Your task to perform on an android device: Play the last video I watched on Youtube Image 0: 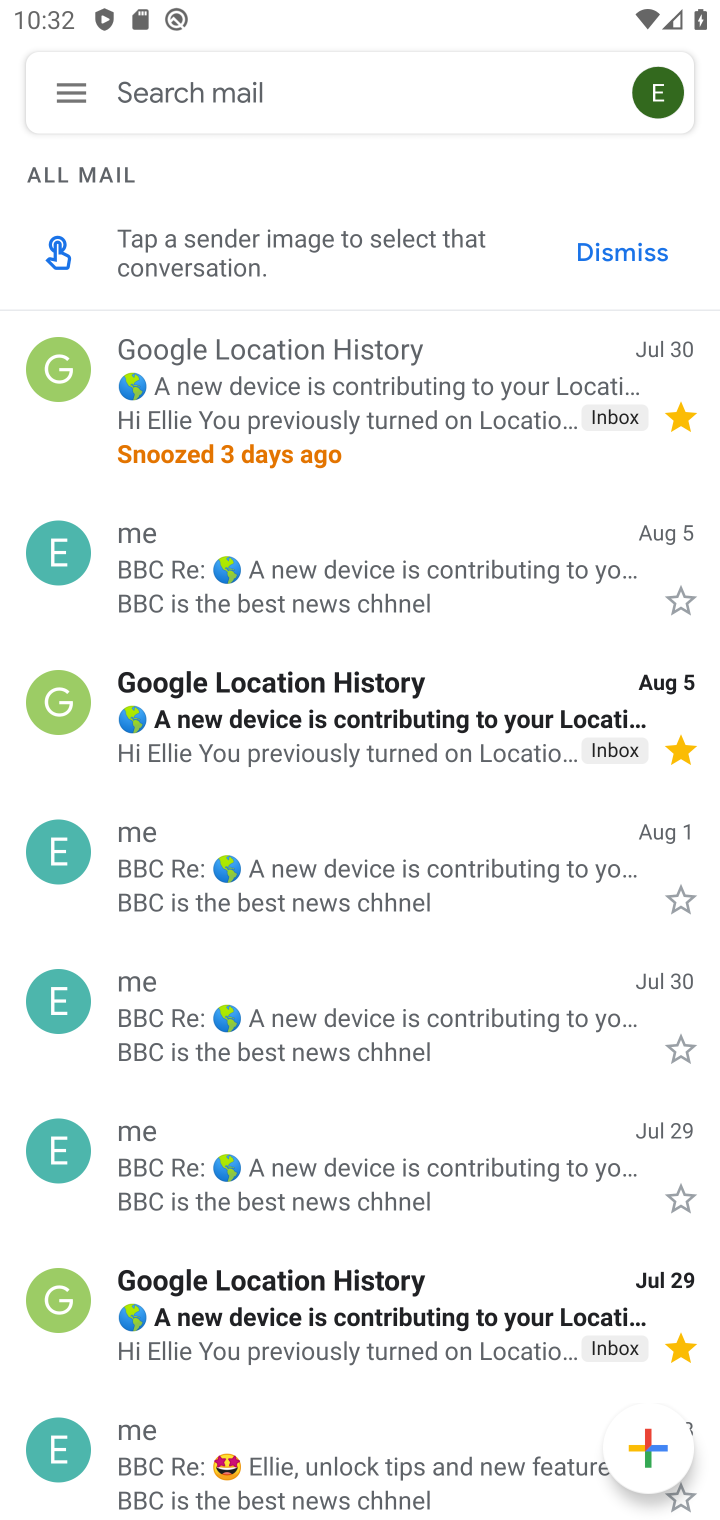
Step 0: press back button
Your task to perform on an android device: Play the last video I watched on Youtube Image 1: 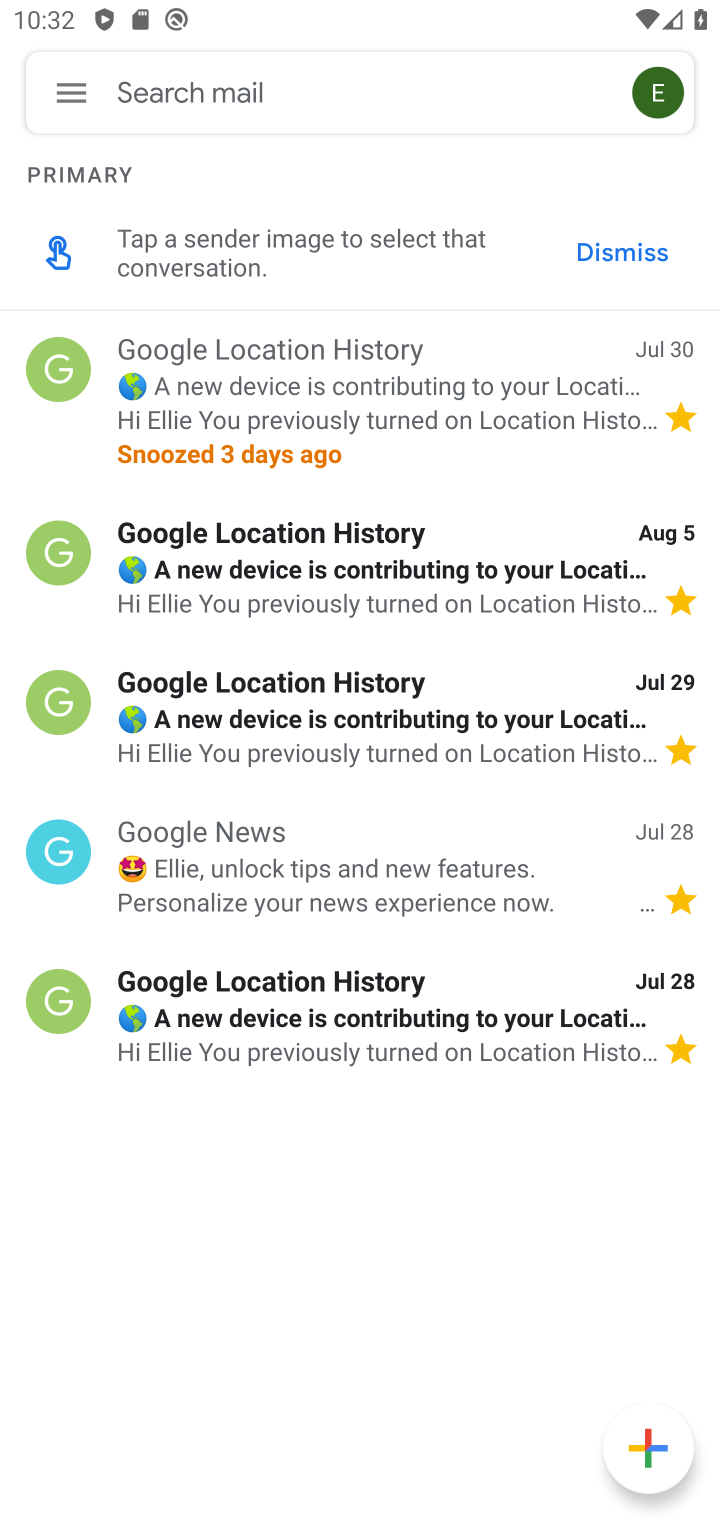
Step 1: press back button
Your task to perform on an android device: Play the last video I watched on Youtube Image 2: 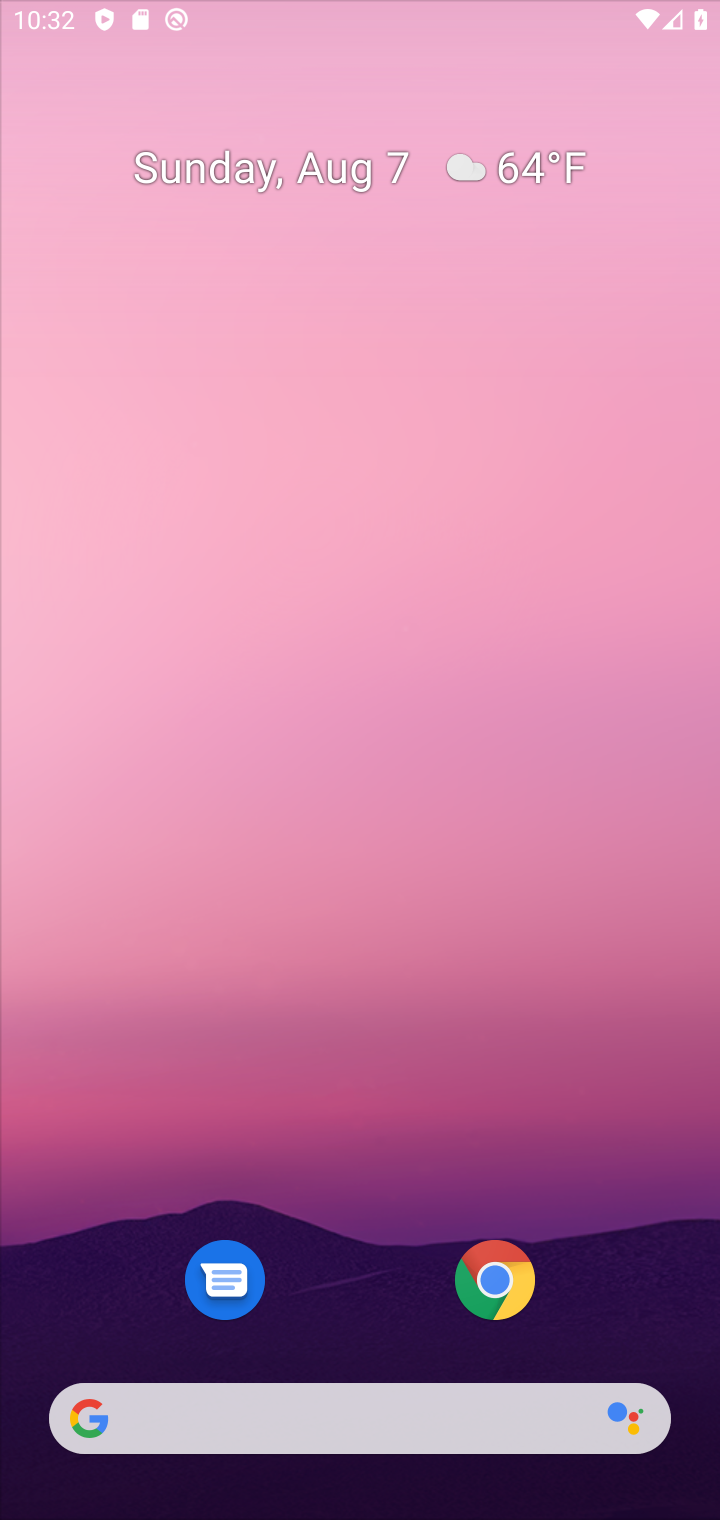
Step 2: press back button
Your task to perform on an android device: Play the last video I watched on Youtube Image 3: 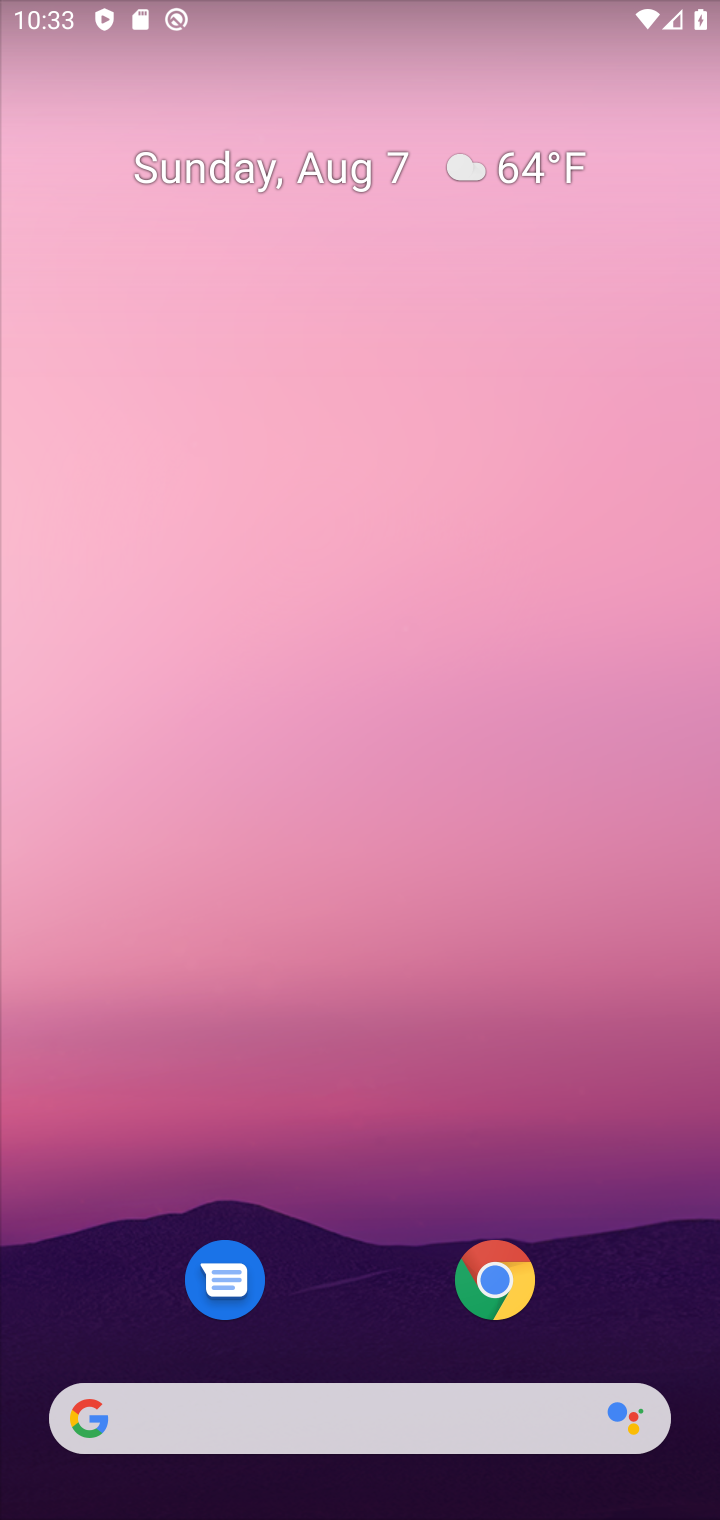
Step 3: drag from (367, 766) to (457, 22)
Your task to perform on an android device: Play the last video I watched on Youtube Image 4: 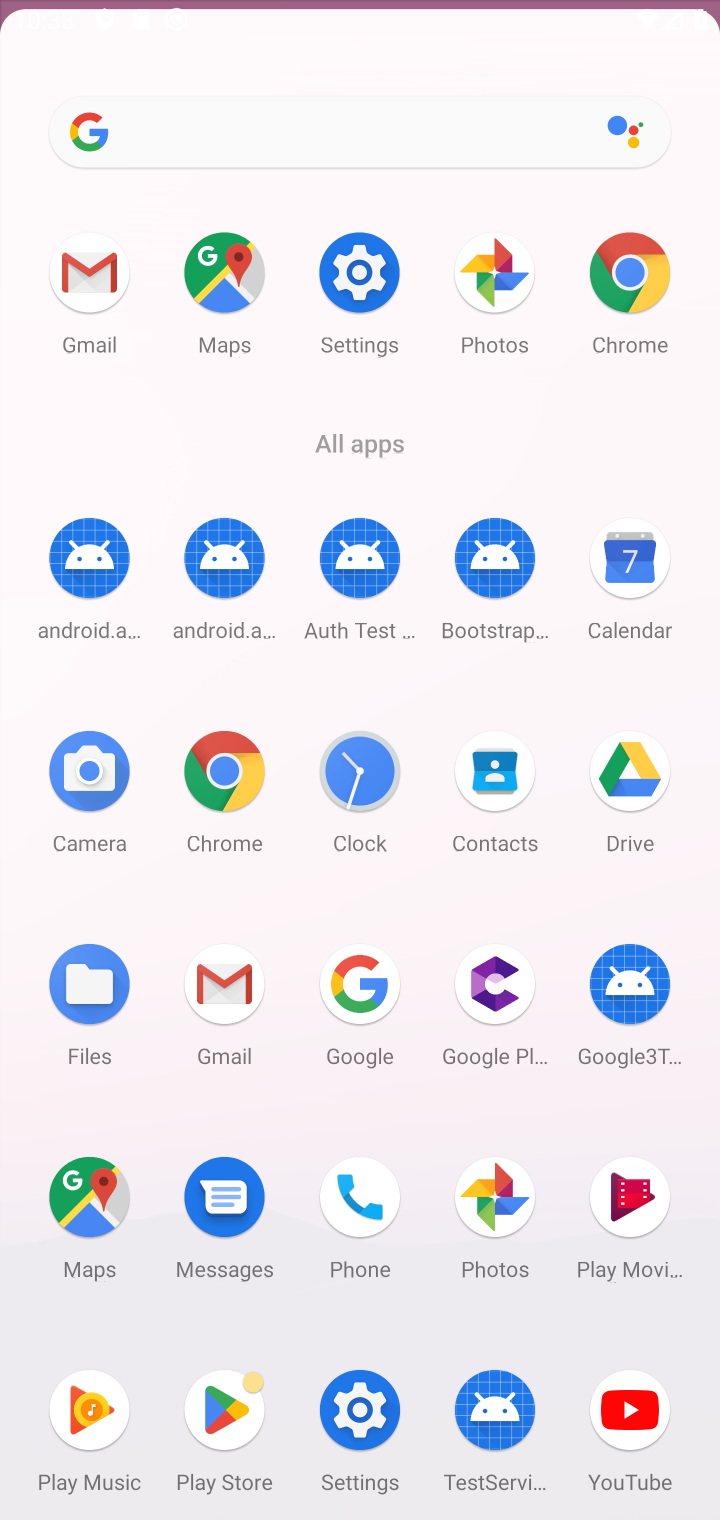
Step 4: drag from (377, 916) to (417, 145)
Your task to perform on an android device: Play the last video I watched on Youtube Image 5: 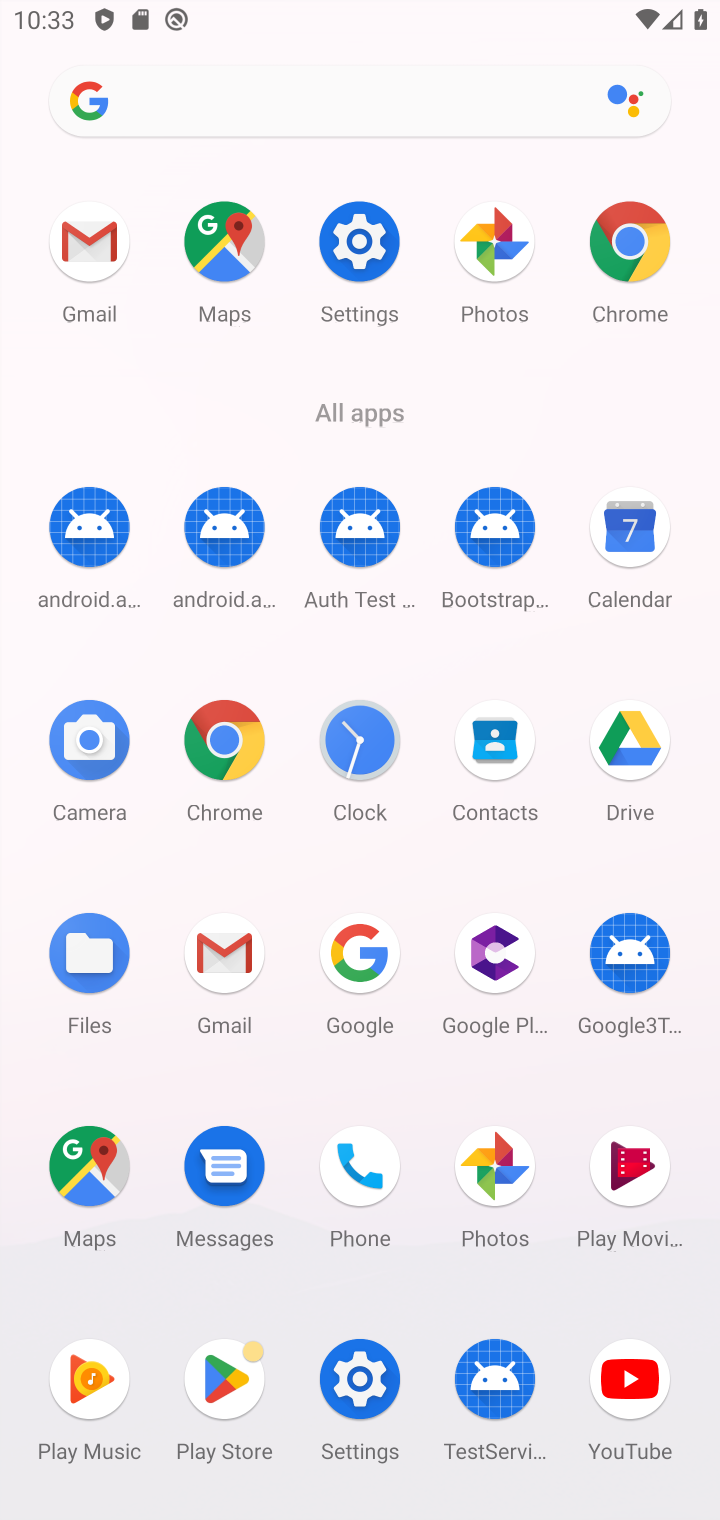
Step 5: click (626, 1378)
Your task to perform on an android device: Play the last video I watched on Youtube Image 6: 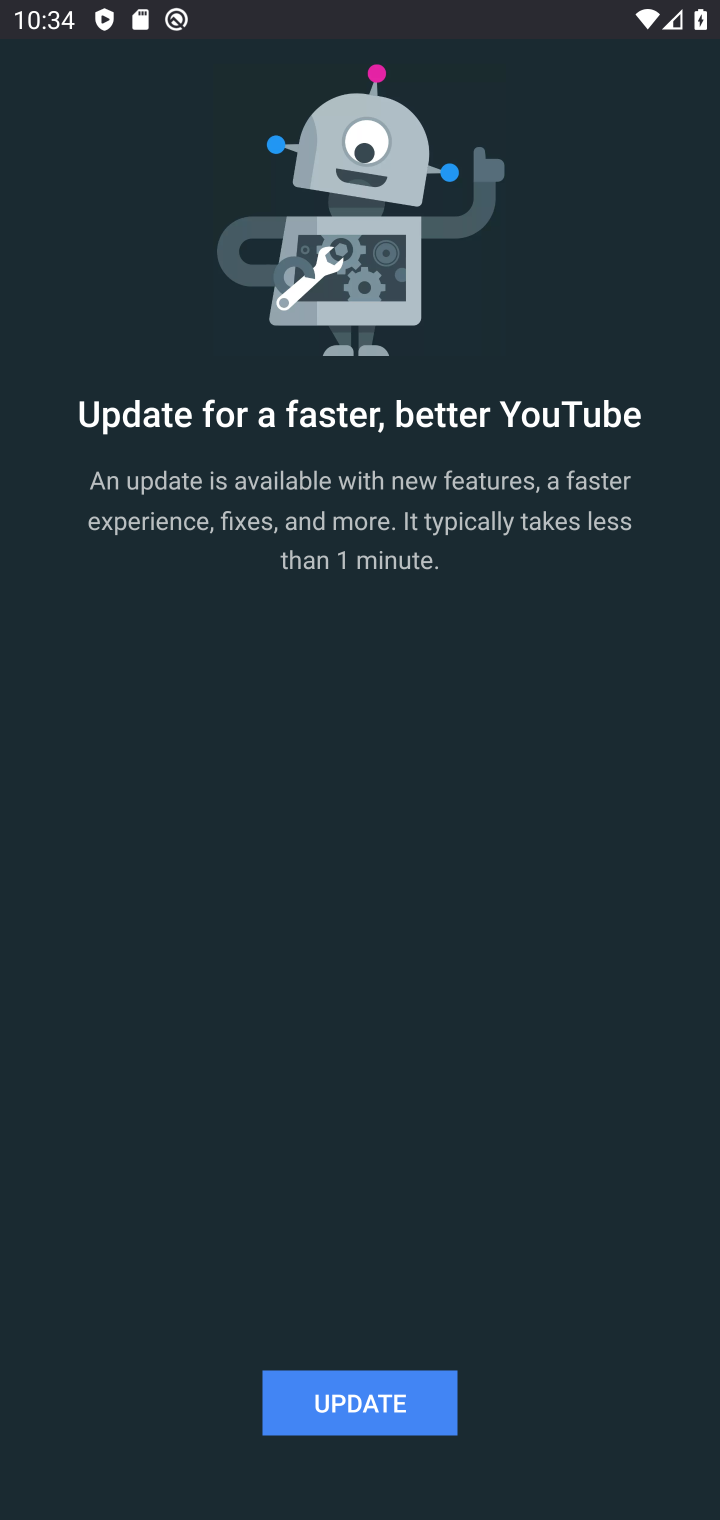
Step 6: task complete